Your task to perform on an android device: Search for "usb-c to usb-a" on ebay, select the first entry, and add it to the cart. Image 0: 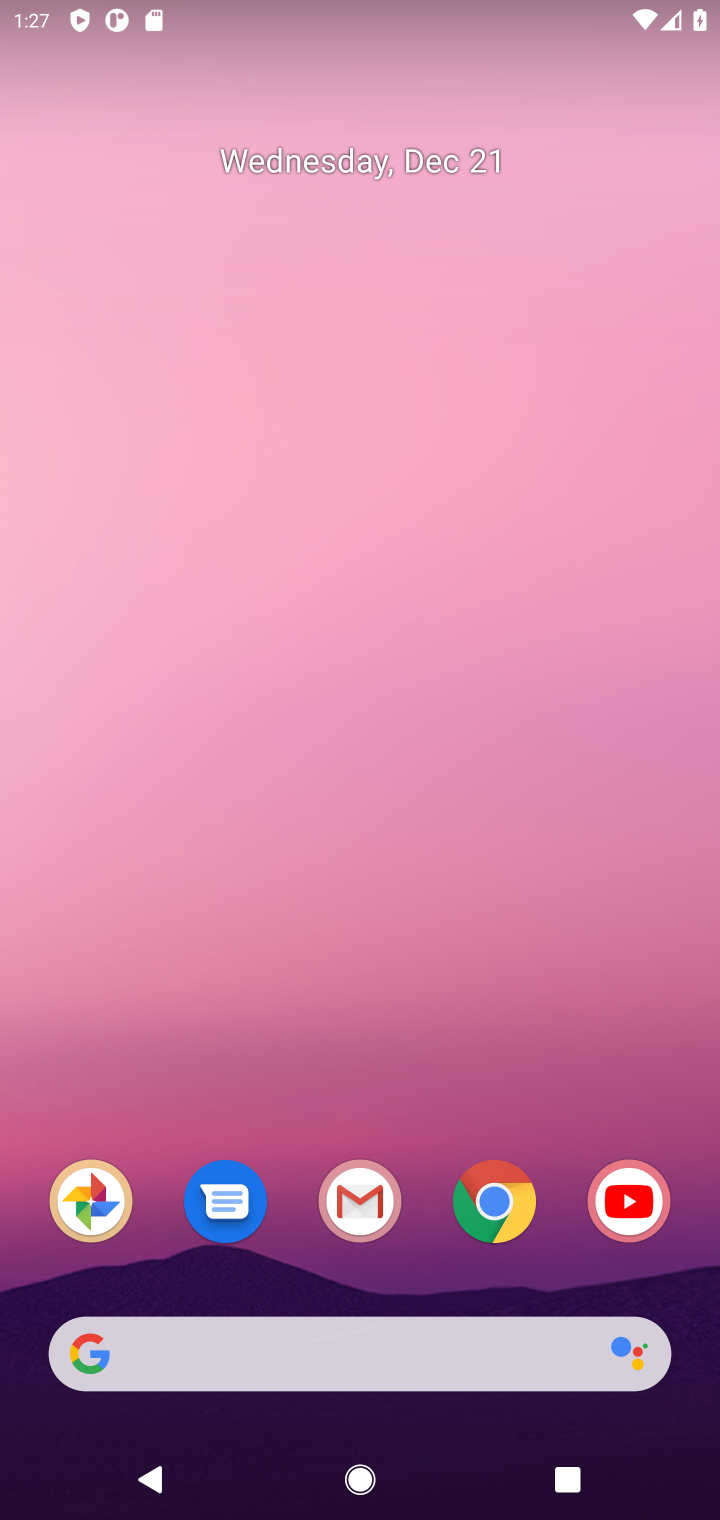
Step 0: click (501, 1209)
Your task to perform on an android device: Search for "usb-c to usb-a" on ebay, select the first entry, and add it to the cart. Image 1: 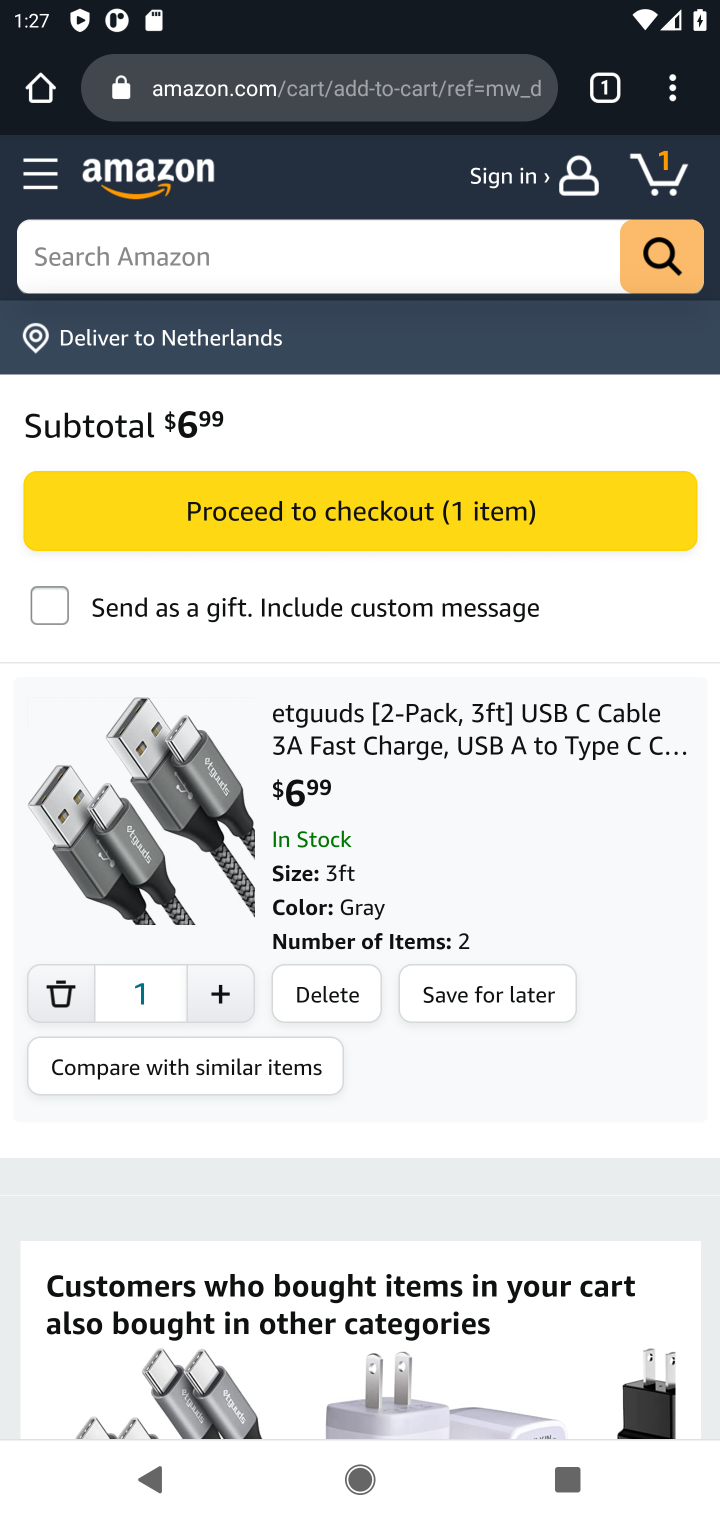
Step 1: click (220, 87)
Your task to perform on an android device: Search for "usb-c to usb-a" on ebay, select the first entry, and add it to the cart. Image 2: 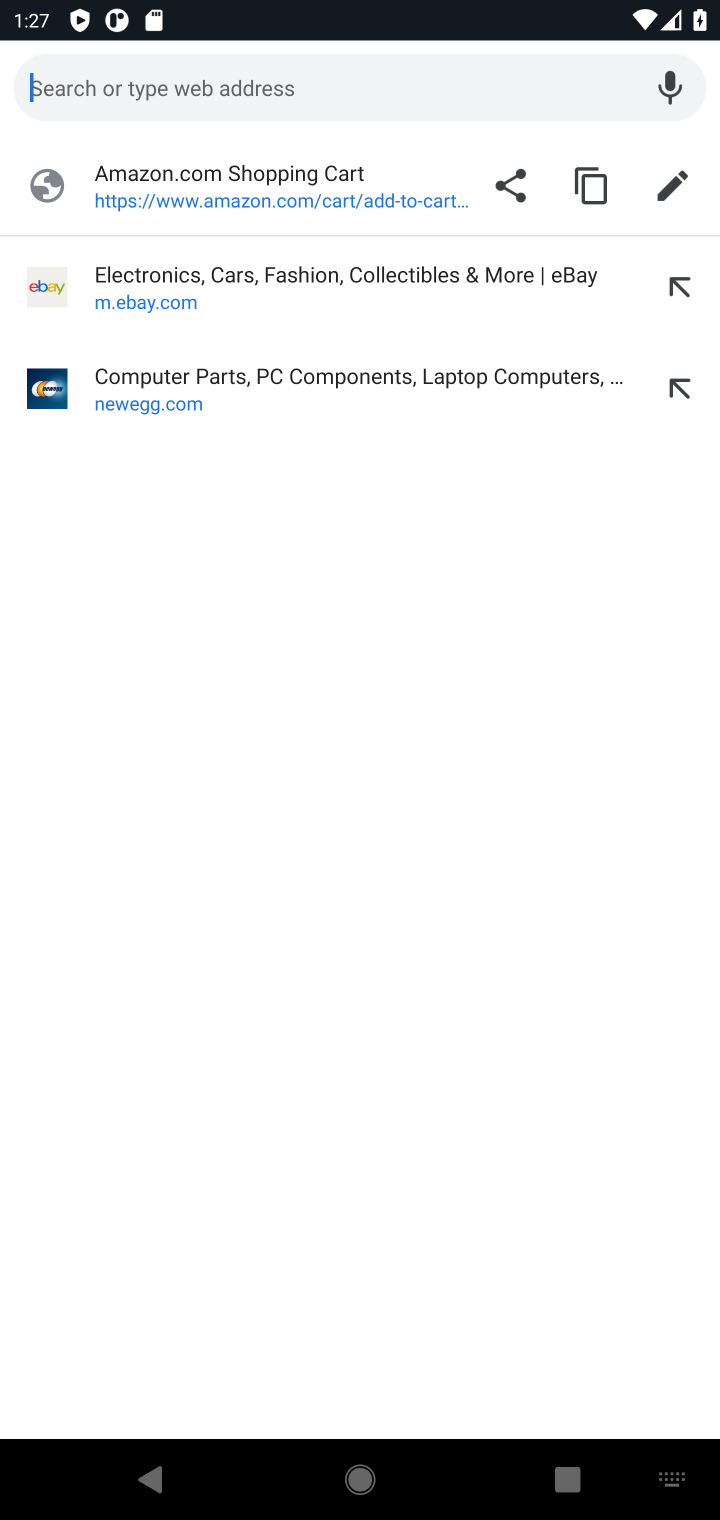
Step 2: click (137, 280)
Your task to perform on an android device: Search for "usb-c to usb-a" on ebay, select the first entry, and add it to the cart. Image 3: 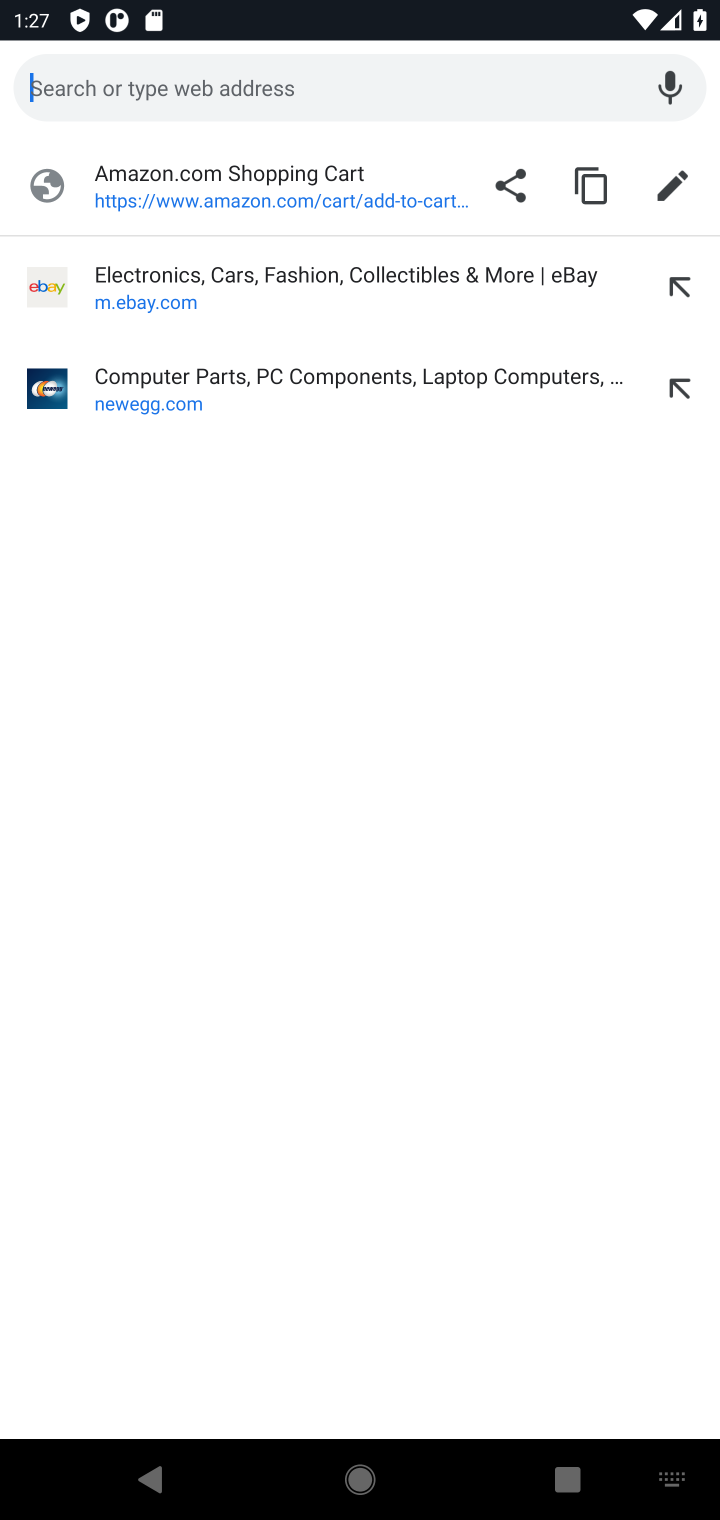
Step 3: click (151, 300)
Your task to perform on an android device: Search for "usb-c to usb-a" on ebay, select the first entry, and add it to the cart. Image 4: 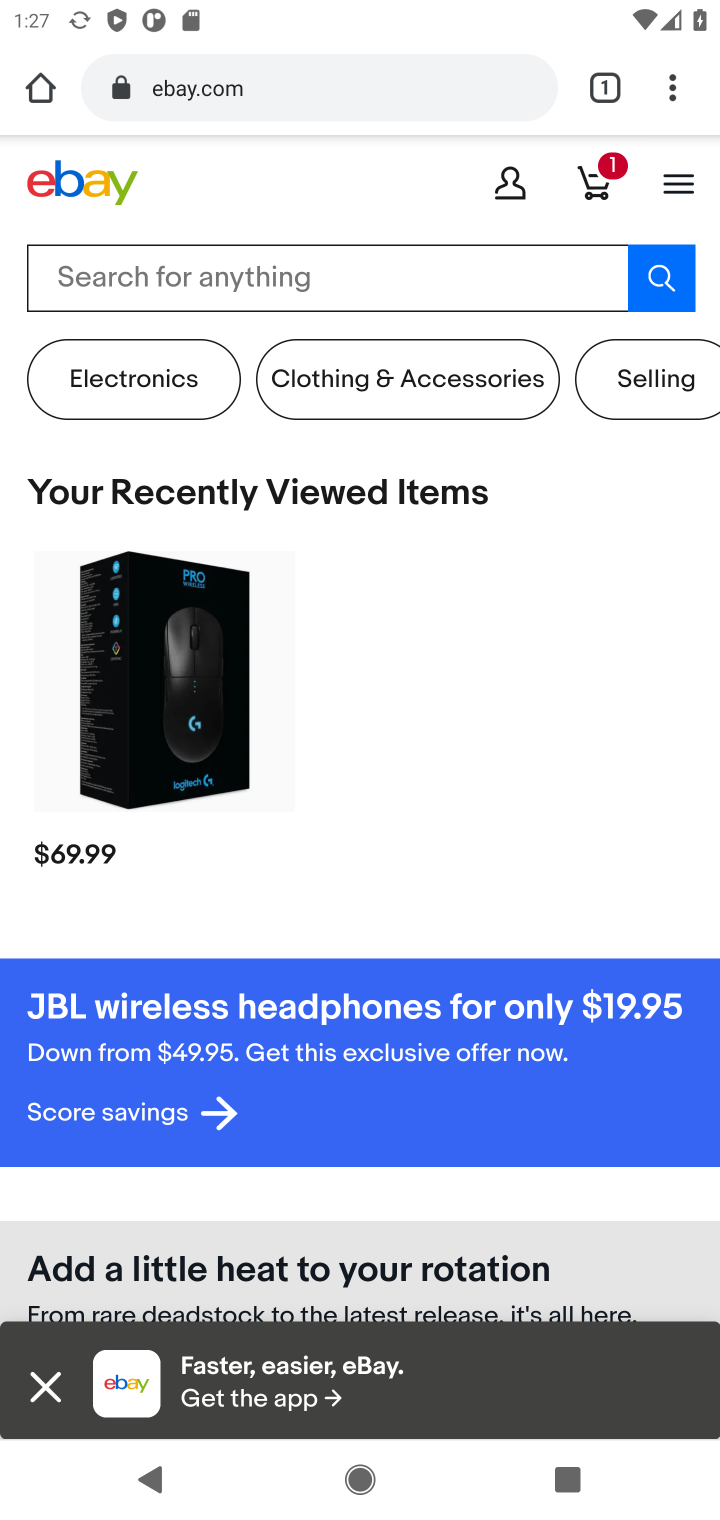
Step 4: click (153, 280)
Your task to perform on an android device: Search for "usb-c to usb-a" on ebay, select the first entry, and add it to the cart. Image 5: 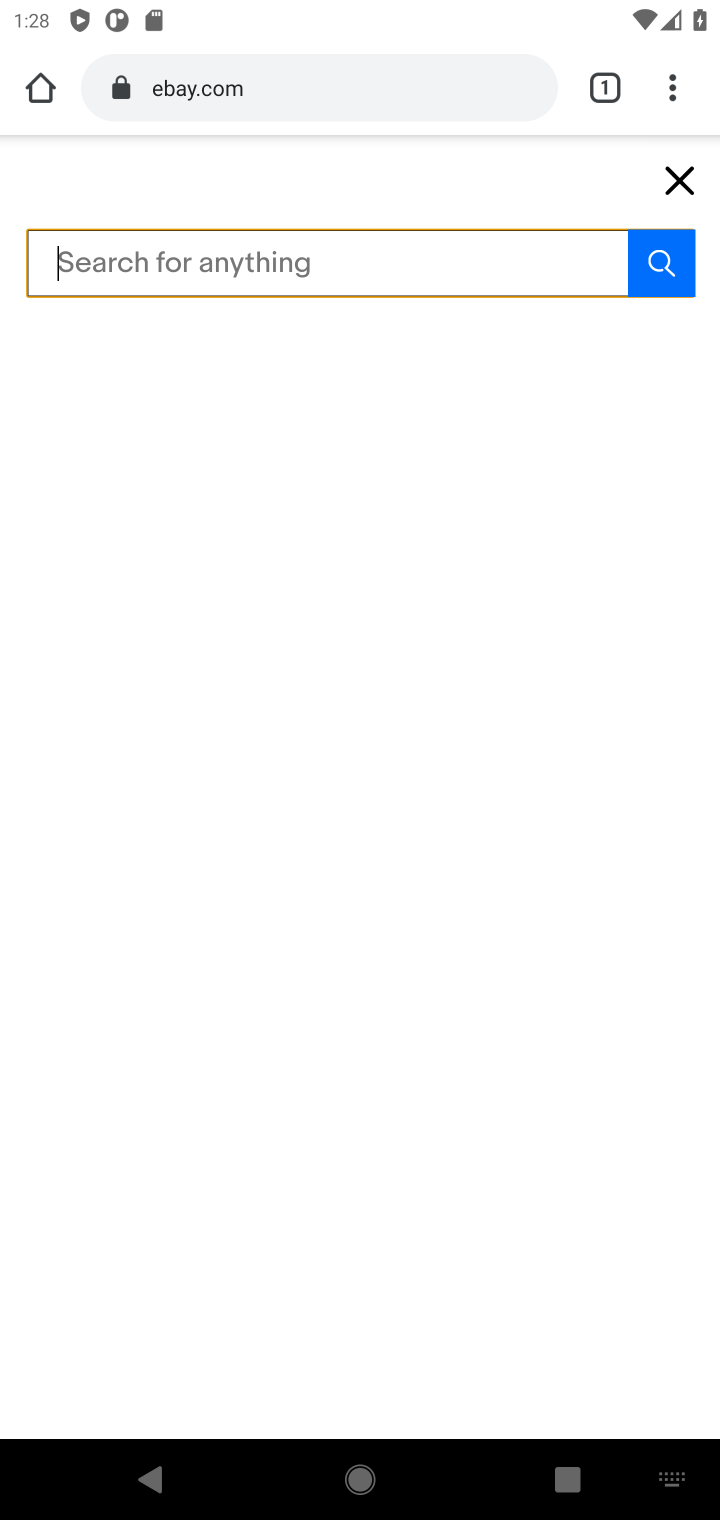
Step 5: type "usb-c to usb-a"
Your task to perform on an android device: Search for "usb-c to usb-a" on ebay, select the first entry, and add it to the cart. Image 6: 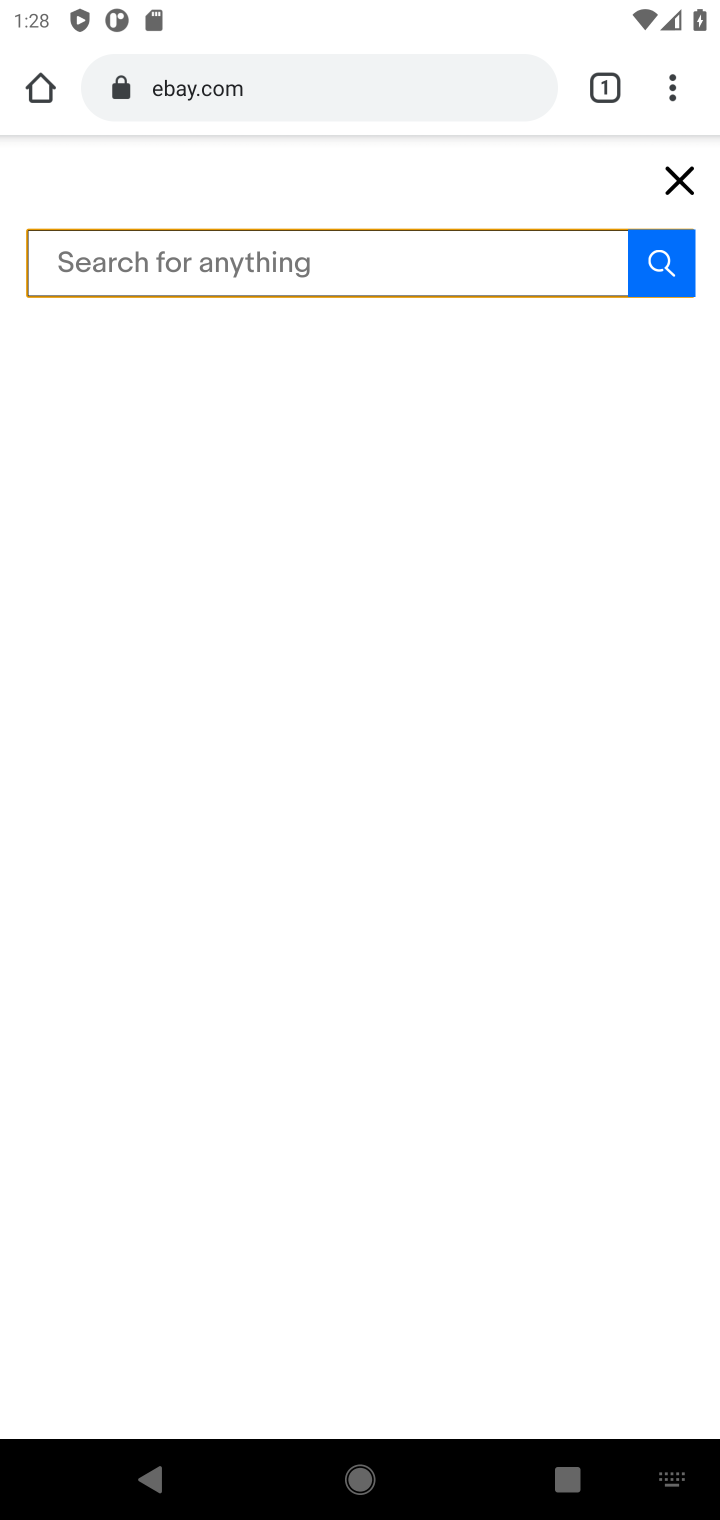
Step 6: click (130, 267)
Your task to perform on an android device: Search for "usb-c to usb-a" on ebay, select the first entry, and add it to the cart. Image 7: 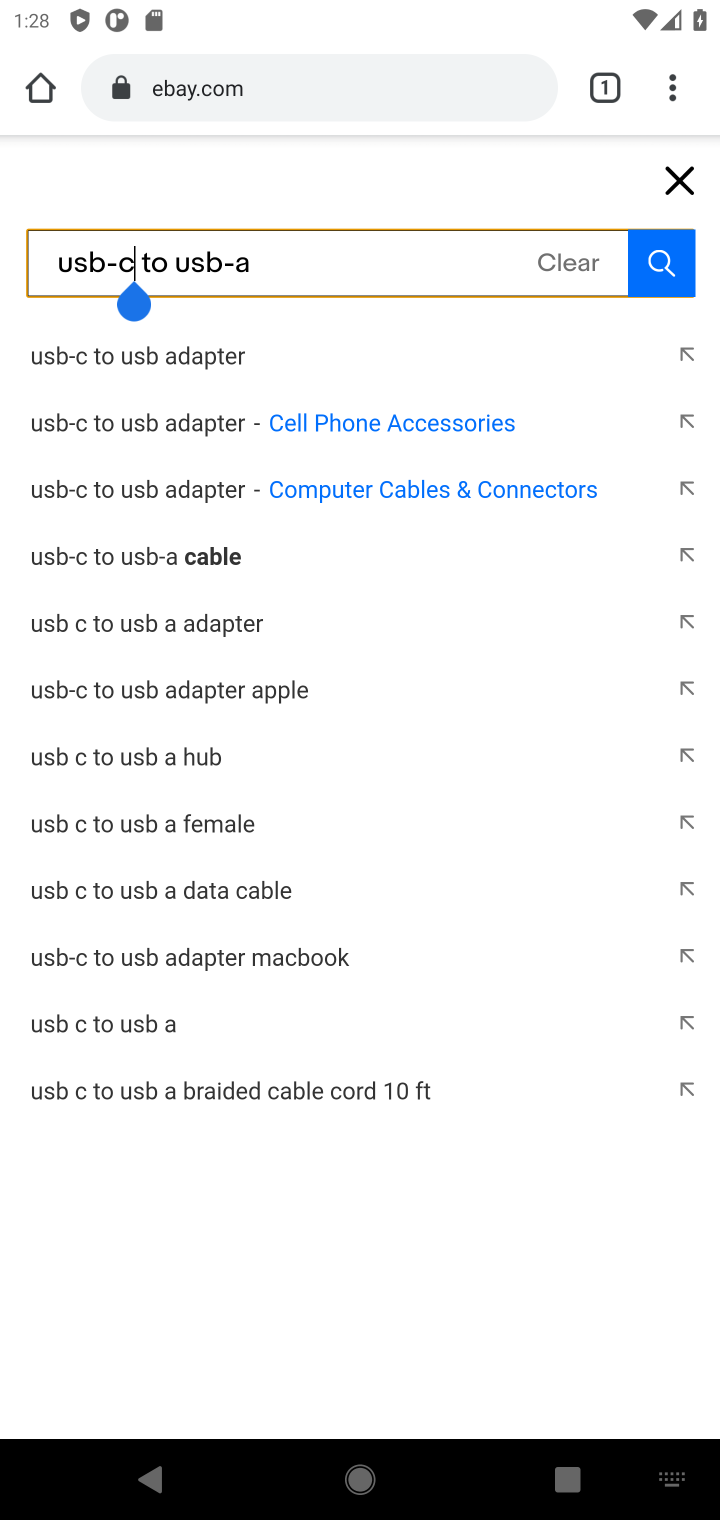
Step 7: click (653, 271)
Your task to perform on an android device: Search for "usb-c to usb-a" on ebay, select the first entry, and add it to the cart. Image 8: 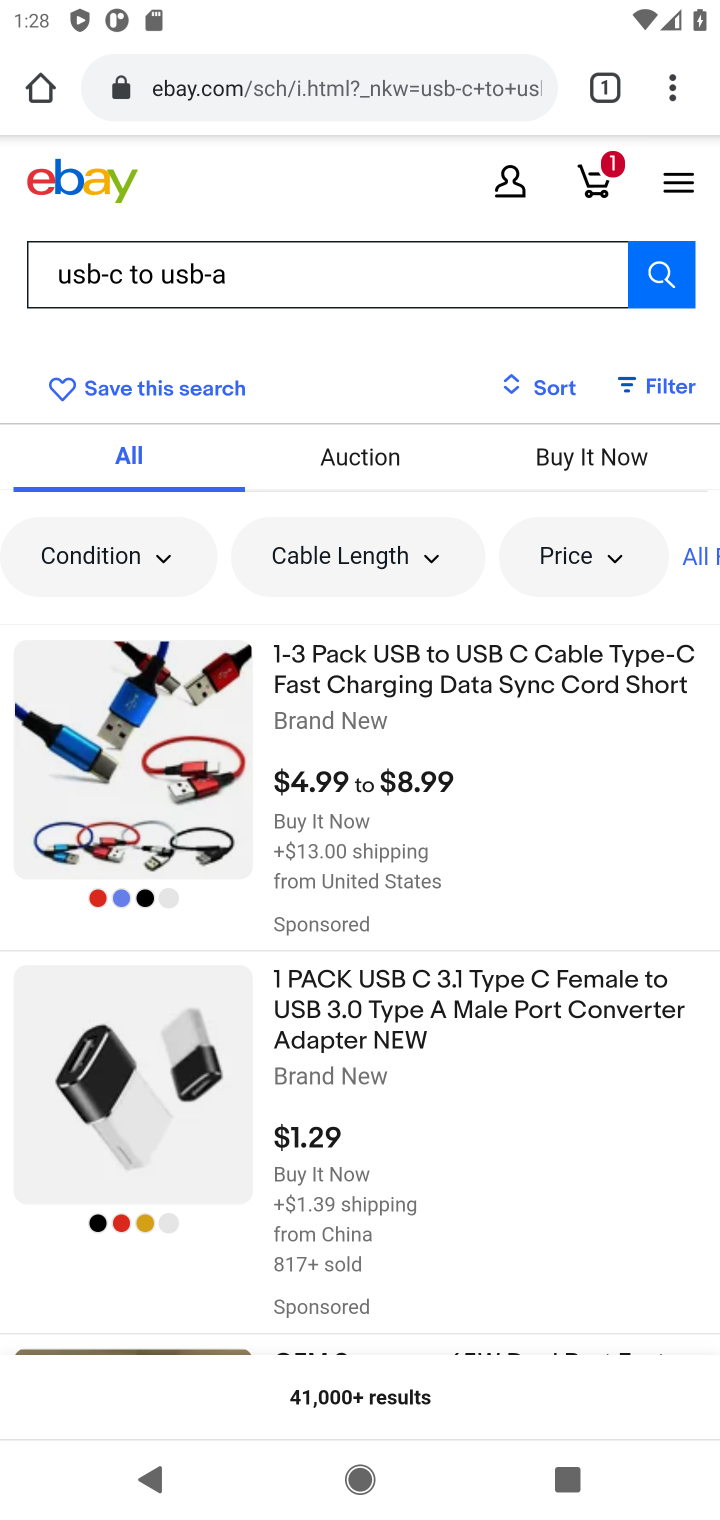
Step 8: click (377, 683)
Your task to perform on an android device: Search for "usb-c to usb-a" on ebay, select the first entry, and add it to the cart. Image 9: 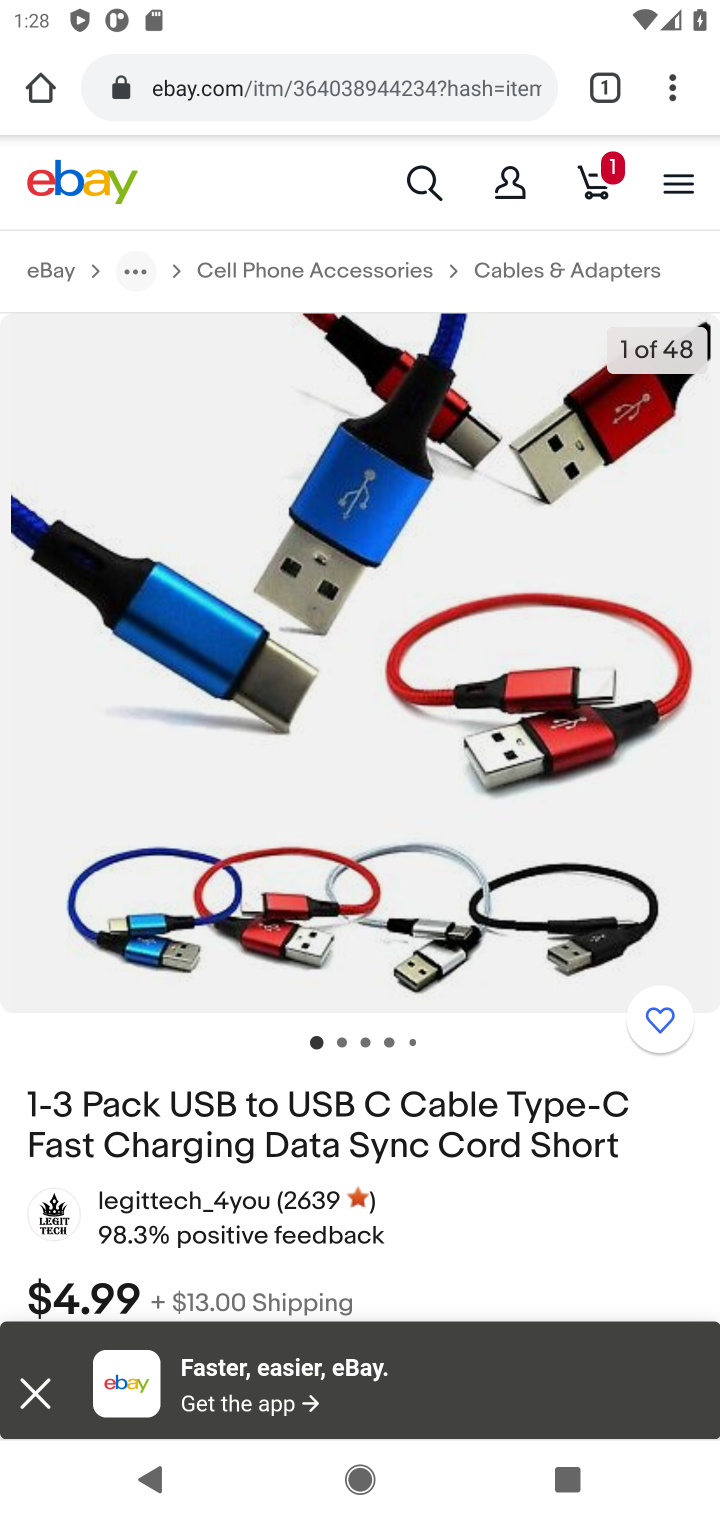
Step 9: task complete